Your task to perform on an android device: Search for seafood restaurants on Google Maps Image 0: 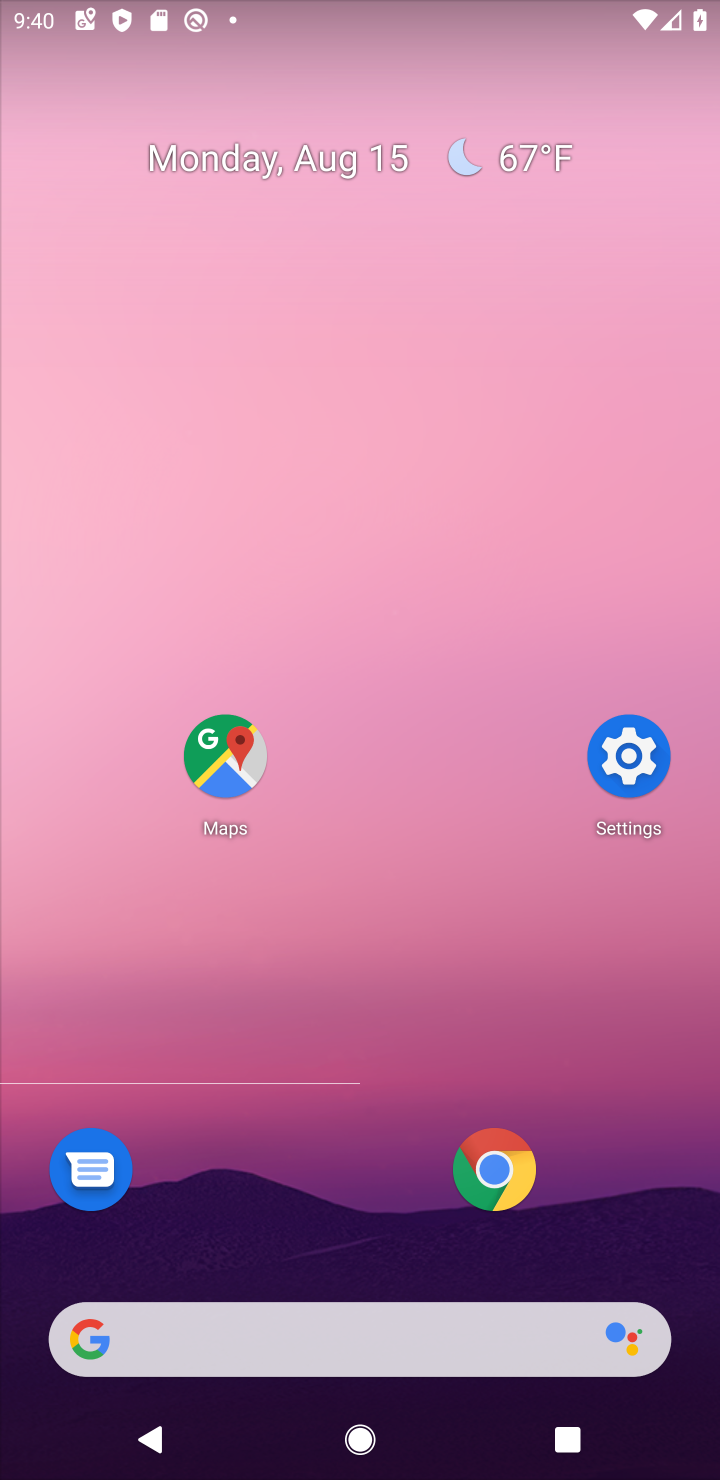
Step 0: press home button
Your task to perform on an android device: Search for seafood restaurants on Google Maps Image 1: 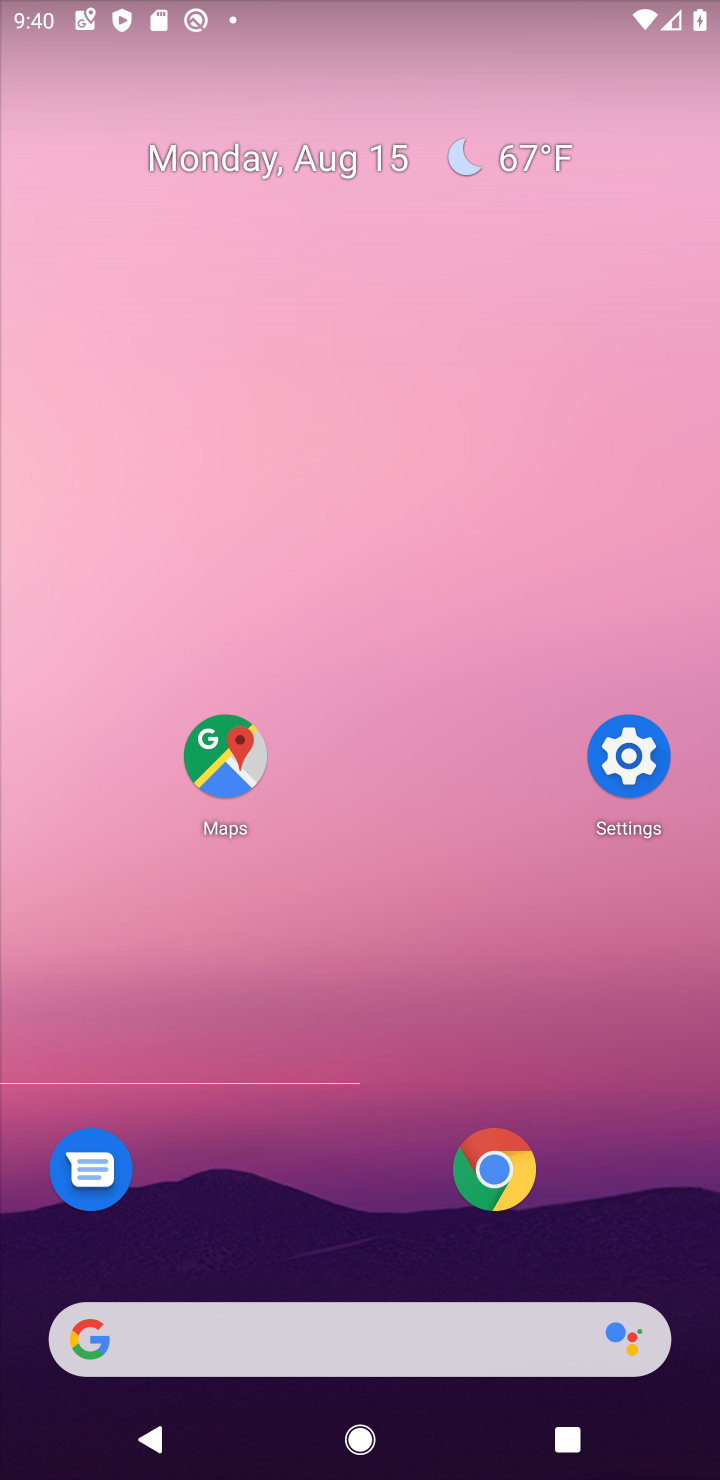
Step 1: click (226, 765)
Your task to perform on an android device: Search for seafood restaurants on Google Maps Image 2: 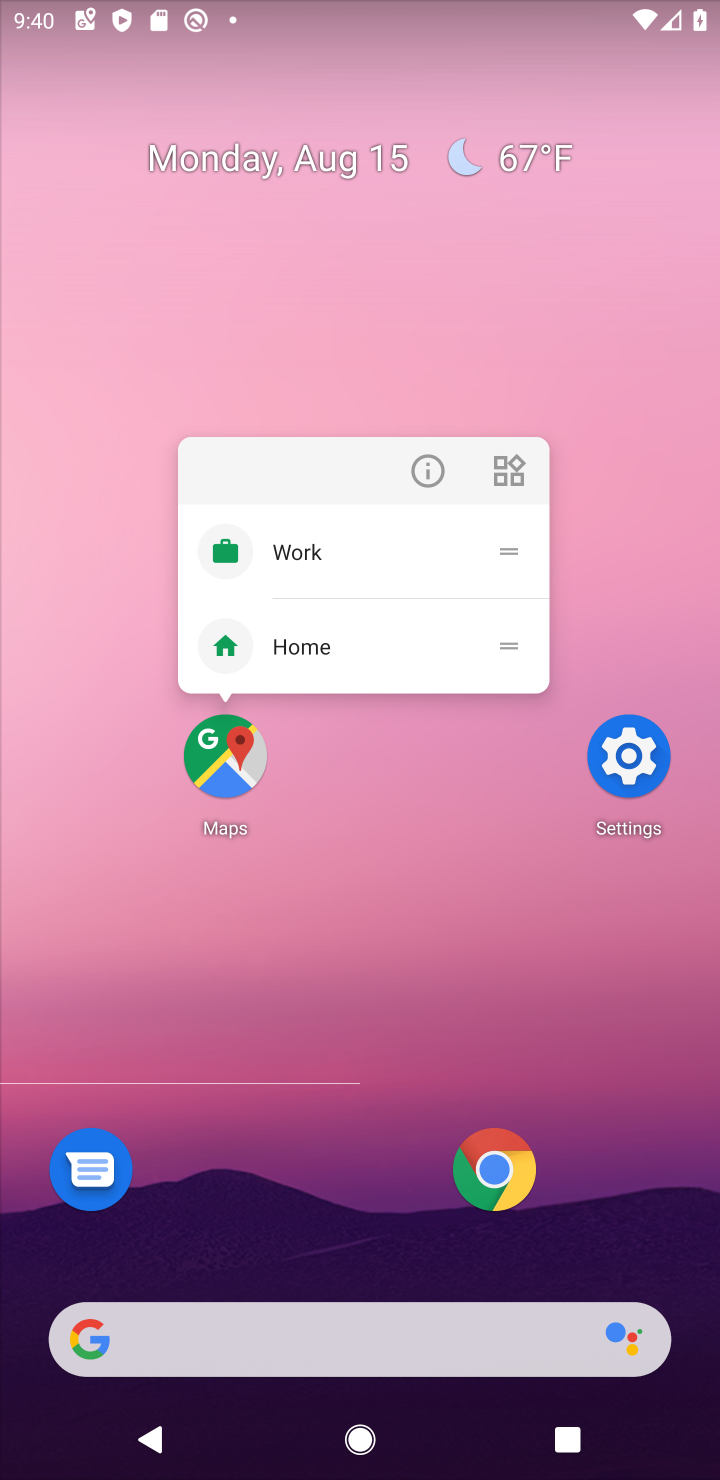
Step 2: click (226, 767)
Your task to perform on an android device: Search for seafood restaurants on Google Maps Image 3: 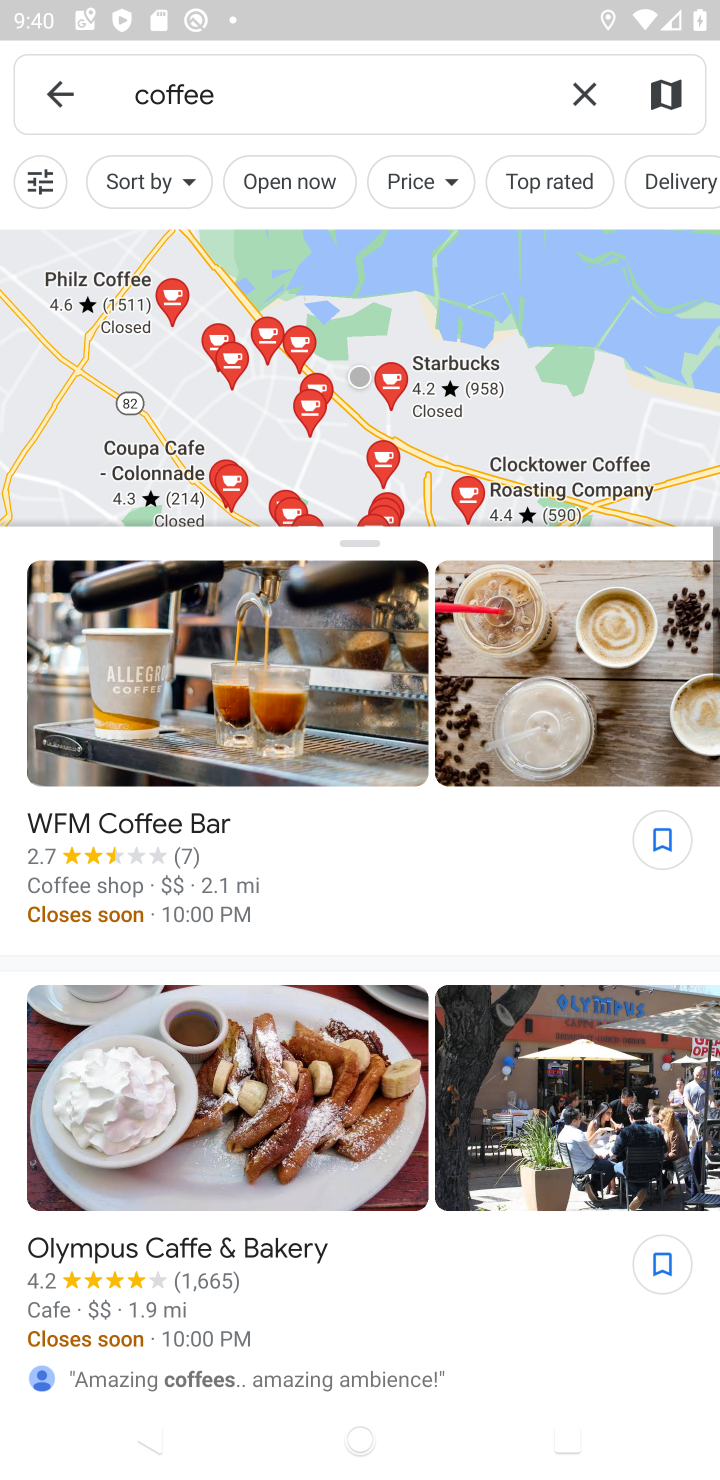
Step 3: click (578, 86)
Your task to perform on an android device: Search for seafood restaurants on Google Maps Image 4: 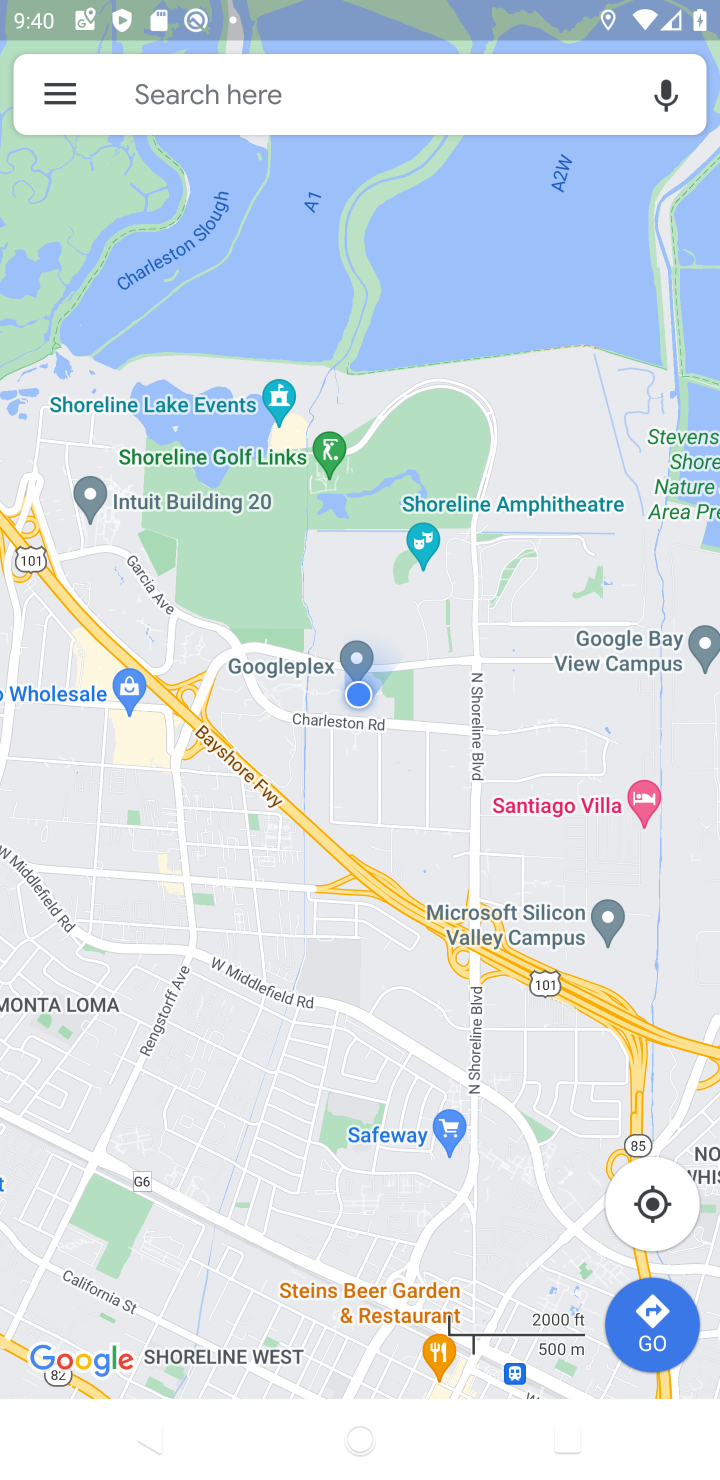
Step 4: click (339, 94)
Your task to perform on an android device: Search for seafood restaurants on Google Maps Image 5: 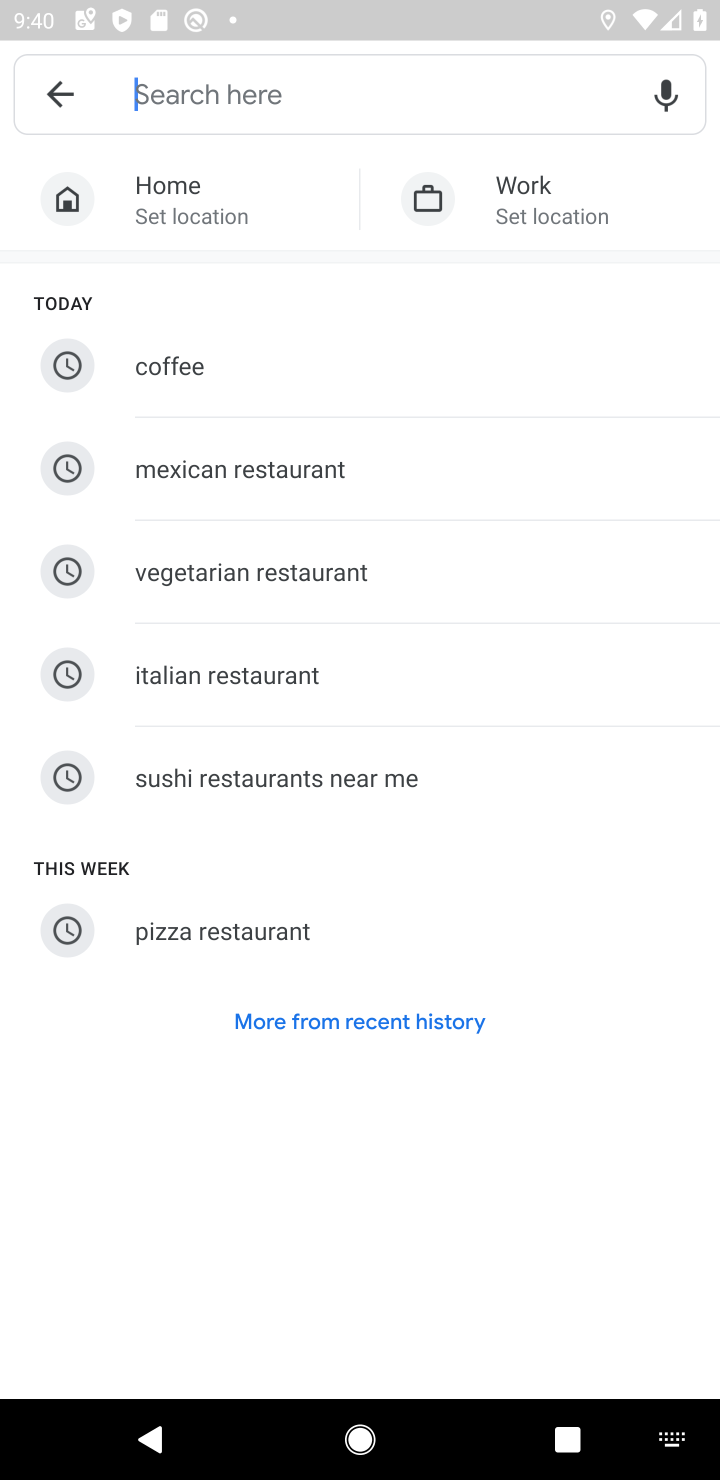
Step 5: type "seafood restaurants"
Your task to perform on an android device: Search for seafood restaurants on Google Maps Image 6: 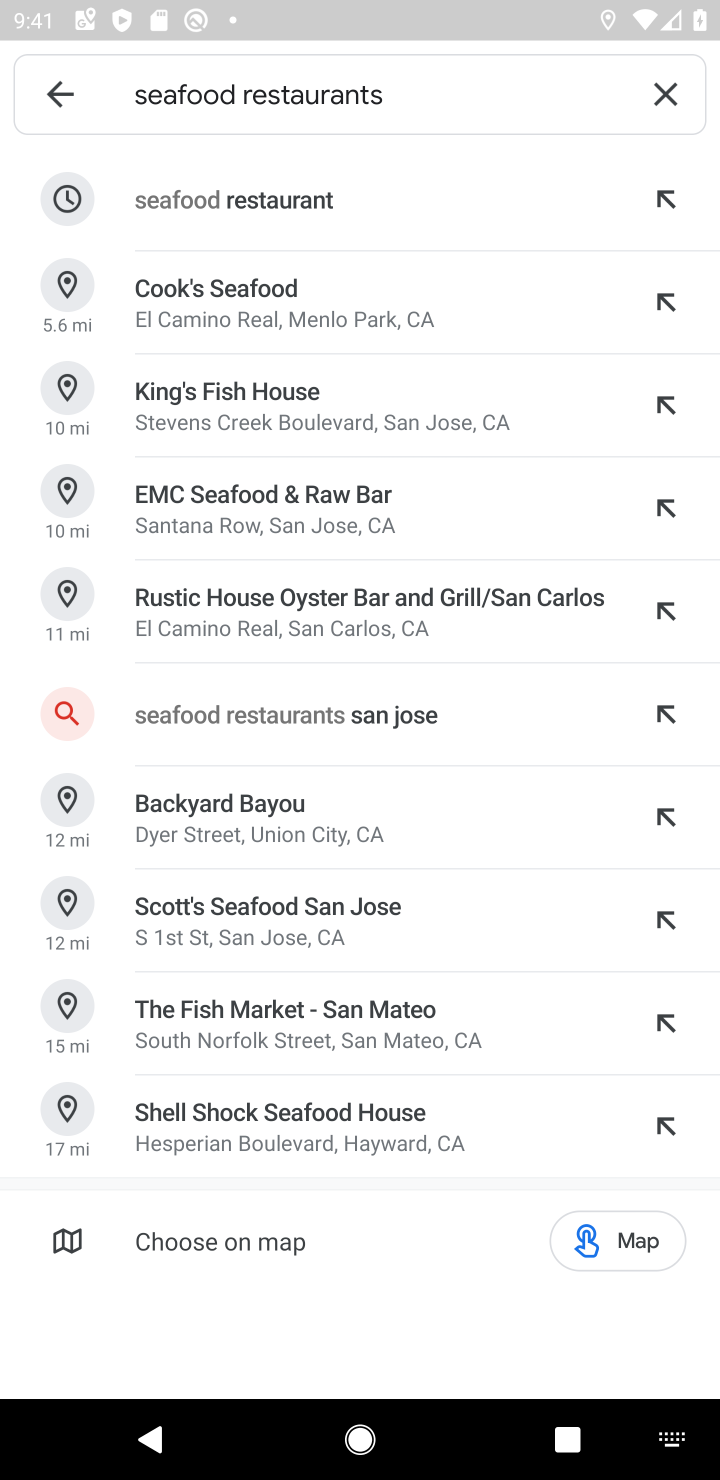
Step 6: click (241, 201)
Your task to perform on an android device: Search for seafood restaurants on Google Maps Image 7: 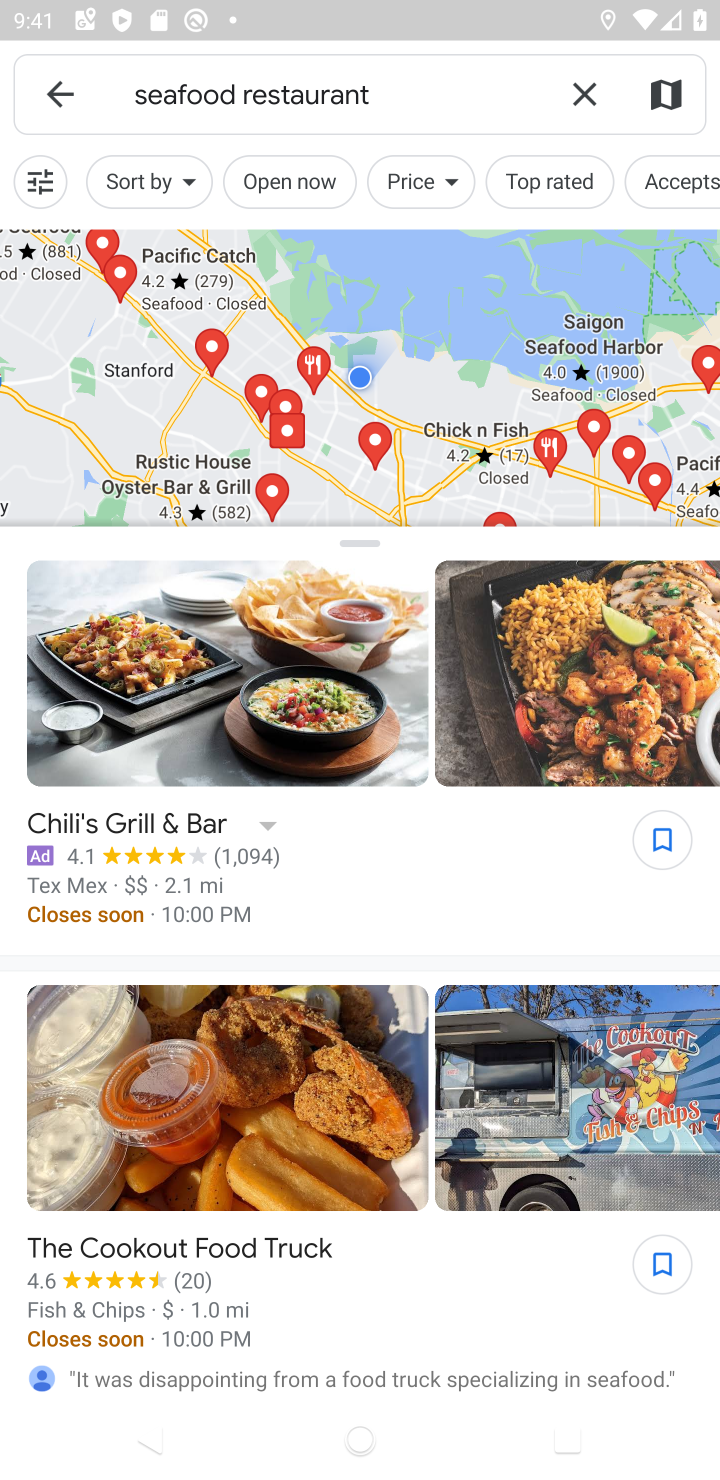
Step 7: task complete